Your task to perform on an android device: read, delete, or share a saved page in the chrome app Image 0: 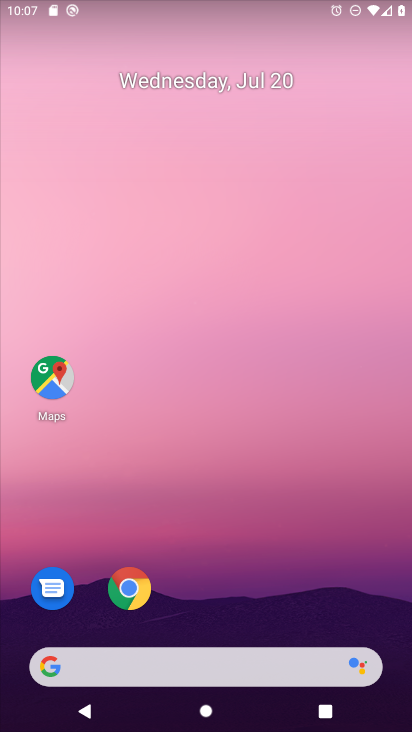
Step 0: click (142, 587)
Your task to perform on an android device: read, delete, or share a saved page in the chrome app Image 1: 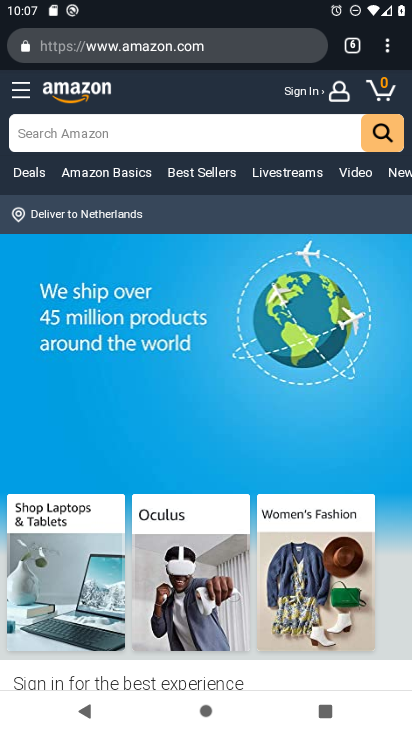
Step 1: click (129, 575)
Your task to perform on an android device: read, delete, or share a saved page in the chrome app Image 2: 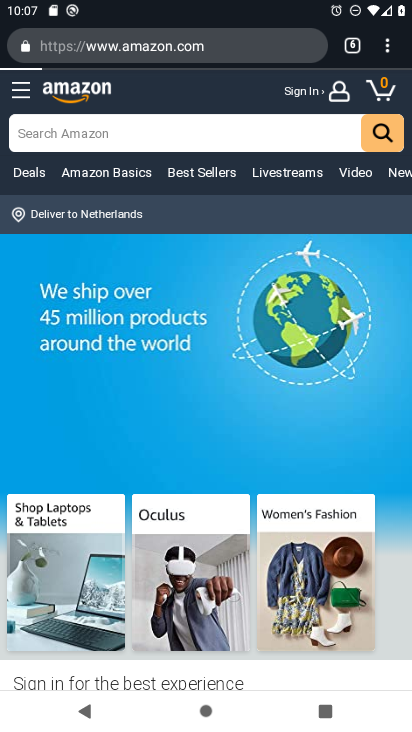
Step 2: click (131, 594)
Your task to perform on an android device: read, delete, or share a saved page in the chrome app Image 3: 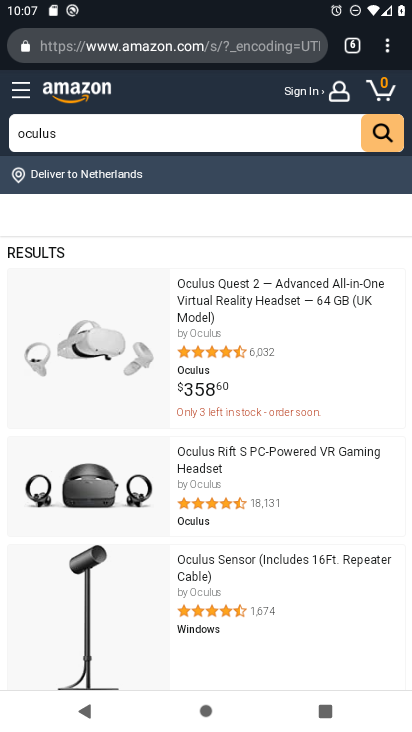
Step 3: click (351, 42)
Your task to perform on an android device: read, delete, or share a saved page in the chrome app Image 4: 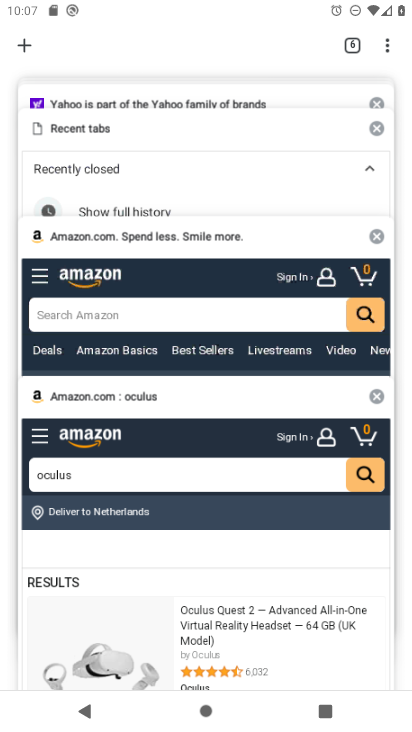
Step 4: click (396, 43)
Your task to perform on an android device: read, delete, or share a saved page in the chrome app Image 5: 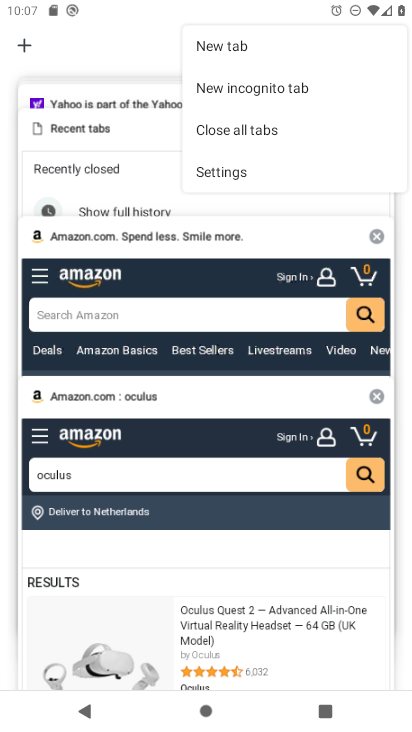
Step 5: click (144, 584)
Your task to perform on an android device: read, delete, or share a saved page in the chrome app Image 6: 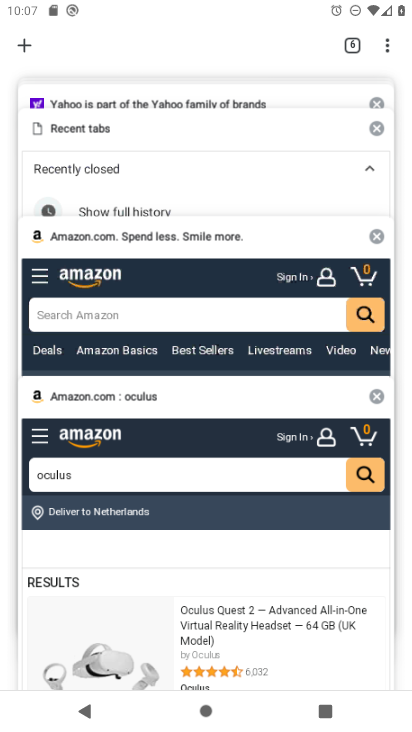
Step 6: click (180, 519)
Your task to perform on an android device: read, delete, or share a saved page in the chrome app Image 7: 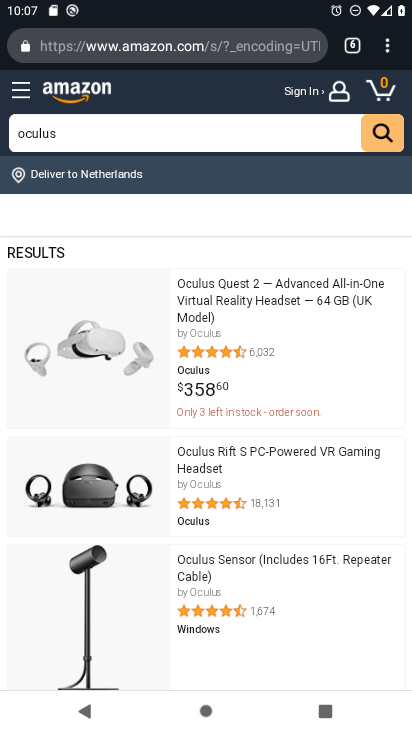
Step 7: click (400, 40)
Your task to perform on an android device: read, delete, or share a saved page in the chrome app Image 8: 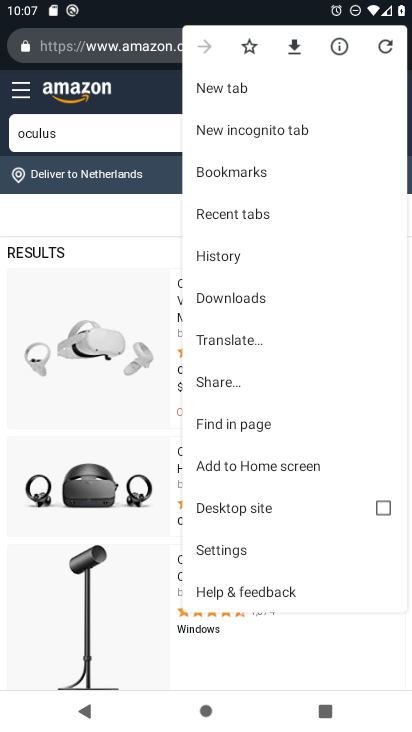
Step 8: click (235, 303)
Your task to perform on an android device: read, delete, or share a saved page in the chrome app Image 9: 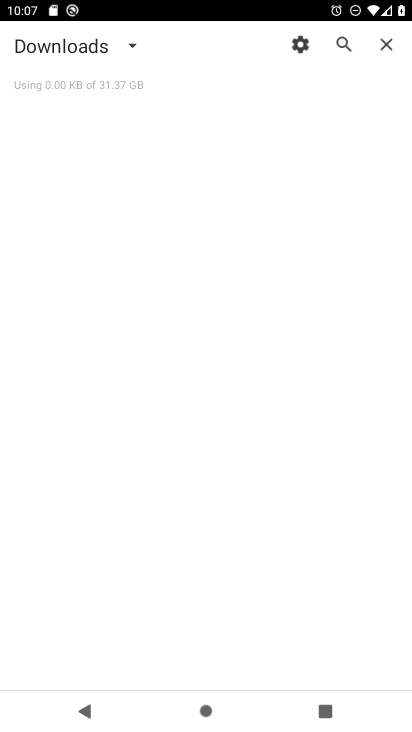
Step 9: task complete